Your task to perform on an android device: open app "DoorDash - Food Delivery" (install if not already installed) Image 0: 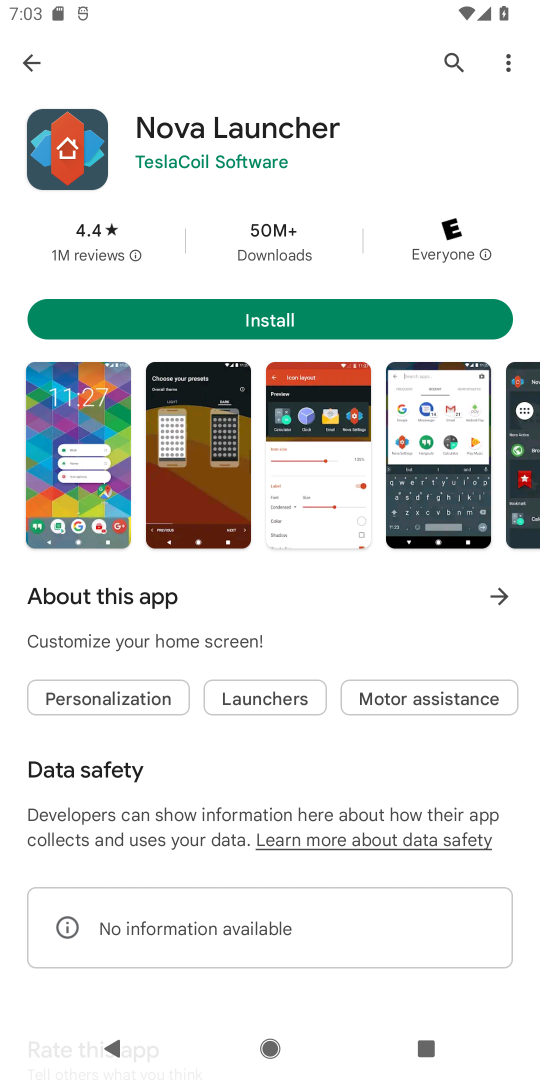
Step 0: press home button
Your task to perform on an android device: open app "DoorDash - Food Delivery" (install if not already installed) Image 1: 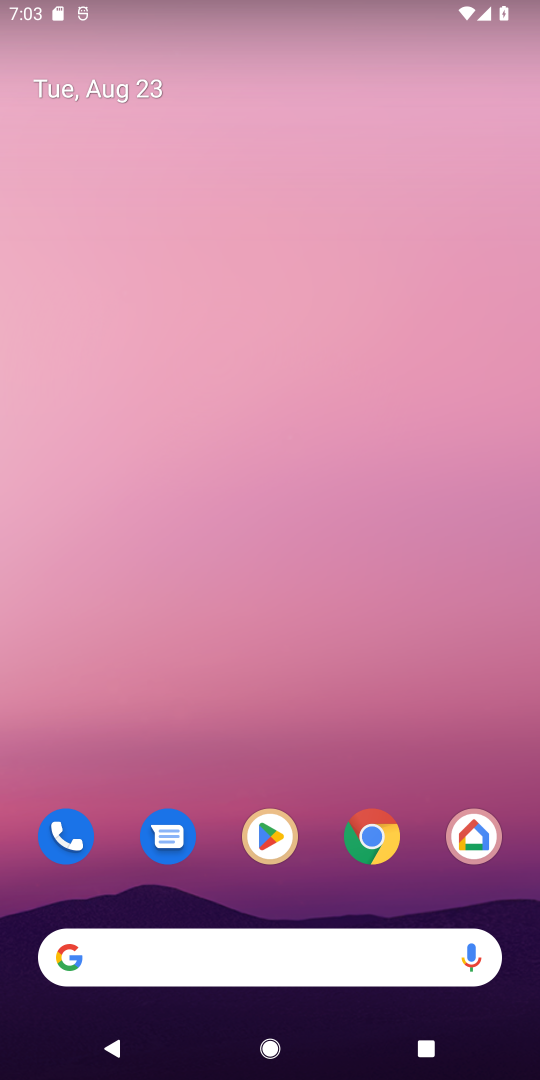
Step 1: click (264, 839)
Your task to perform on an android device: open app "DoorDash - Food Delivery" (install if not already installed) Image 2: 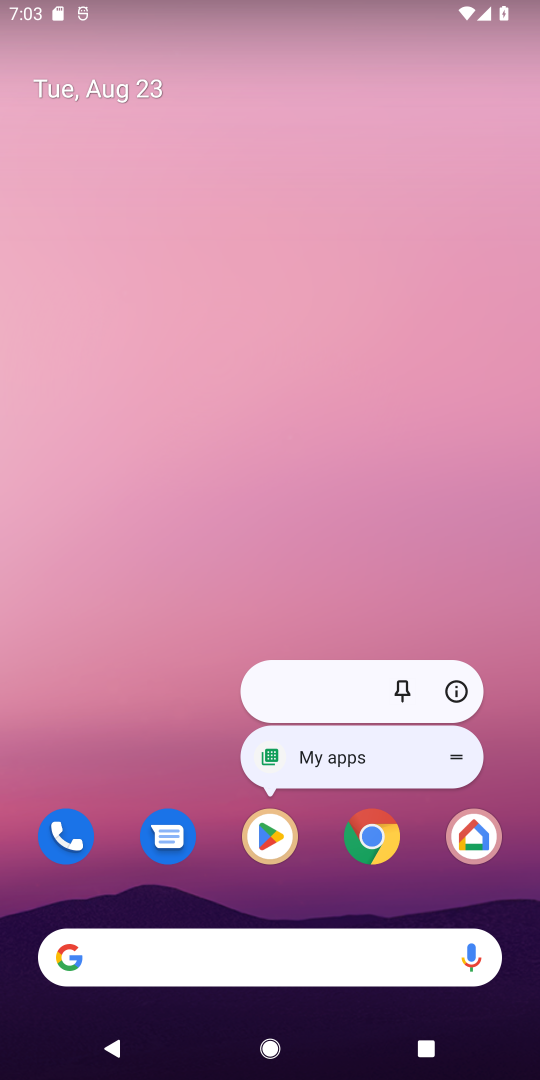
Step 2: click (275, 838)
Your task to perform on an android device: open app "DoorDash - Food Delivery" (install if not already installed) Image 3: 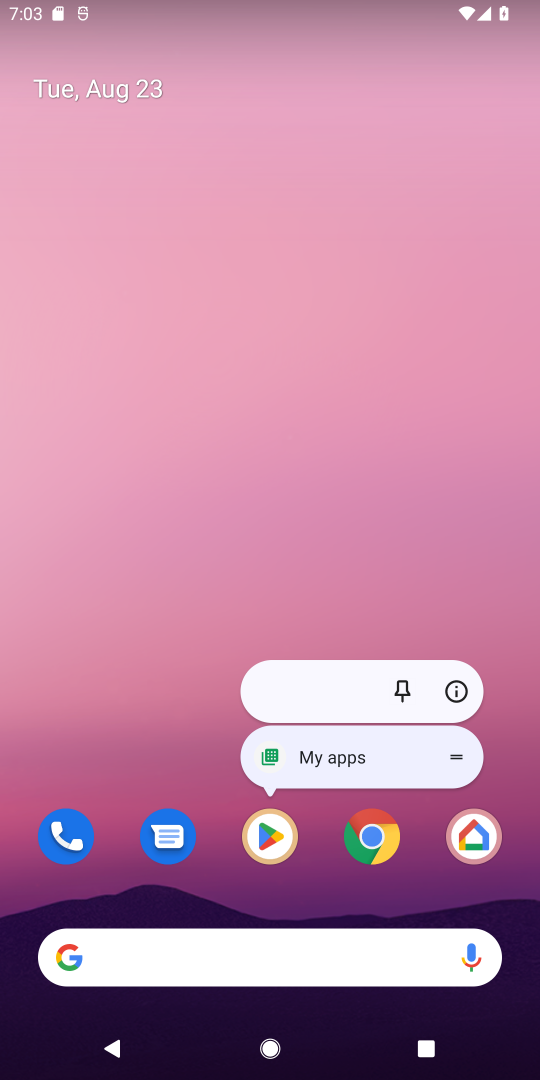
Step 3: click (278, 836)
Your task to perform on an android device: open app "DoorDash - Food Delivery" (install if not already installed) Image 4: 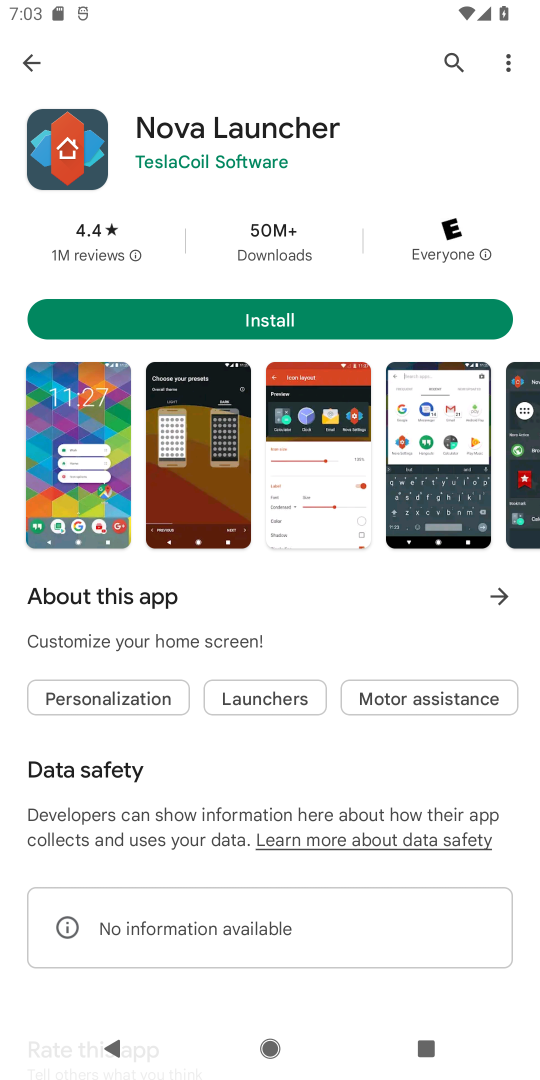
Step 4: click (453, 60)
Your task to perform on an android device: open app "DoorDash - Food Delivery" (install if not already installed) Image 5: 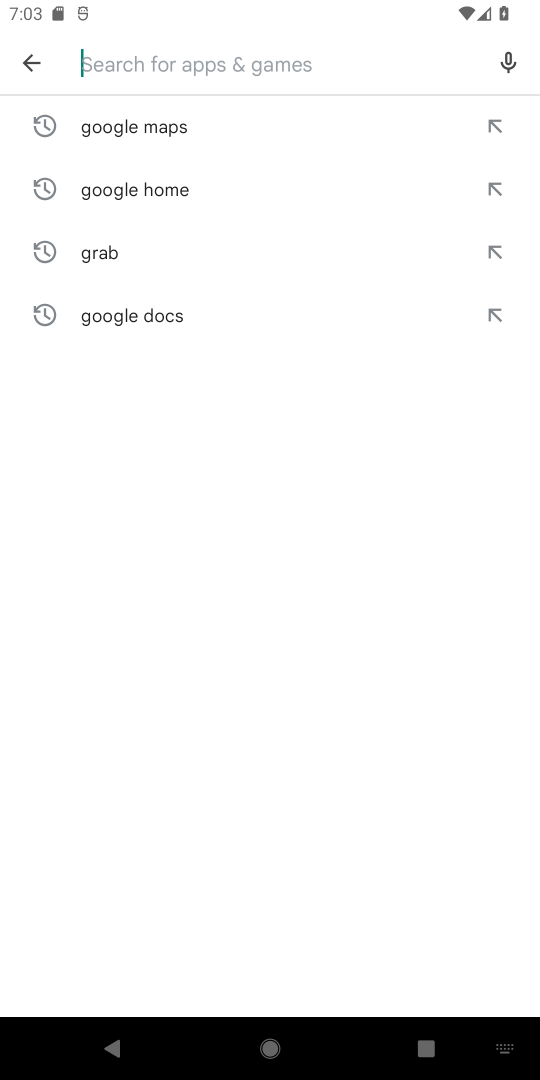
Step 5: type "DoorDash - Food Delivery"
Your task to perform on an android device: open app "DoorDash - Food Delivery" (install if not already installed) Image 6: 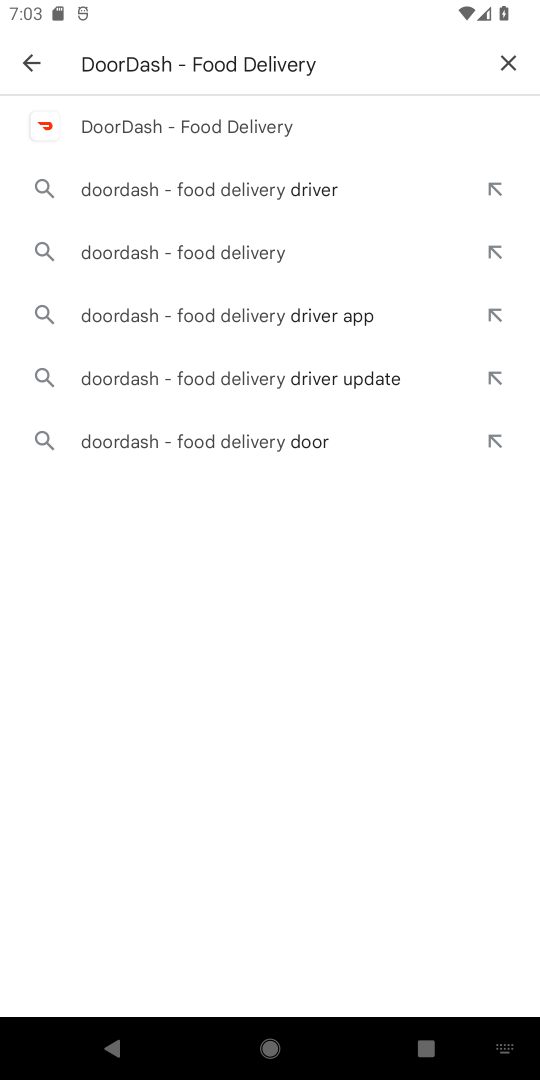
Step 6: click (254, 129)
Your task to perform on an android device: open app "DoorDash - Food Delivery" (install if not already installed) Image 7: 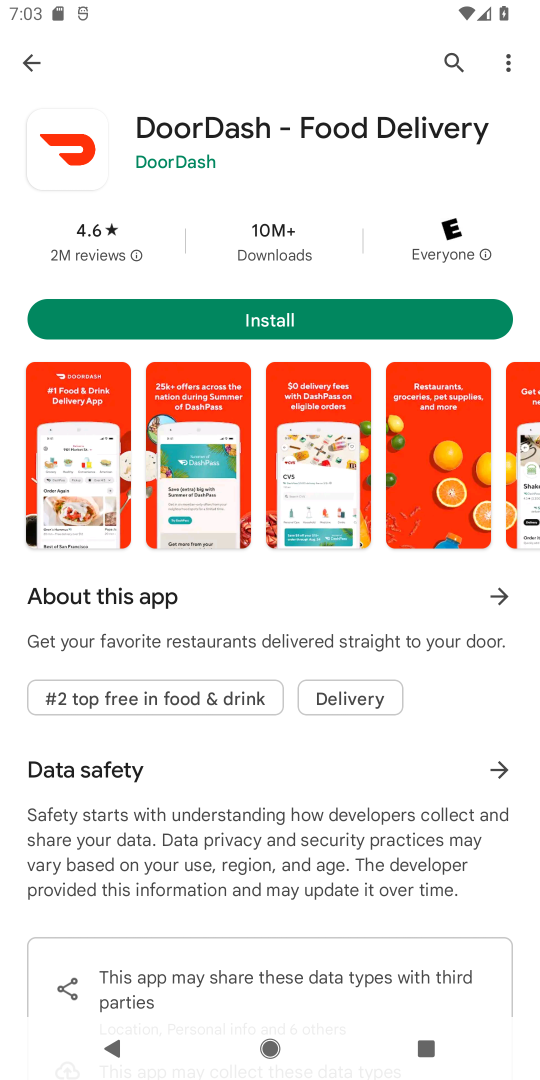
Step 7: click (255, 321)
Your task to perform on an android device: open app "DoorDash - Food Delivery" (install if not already installed) Image 8: 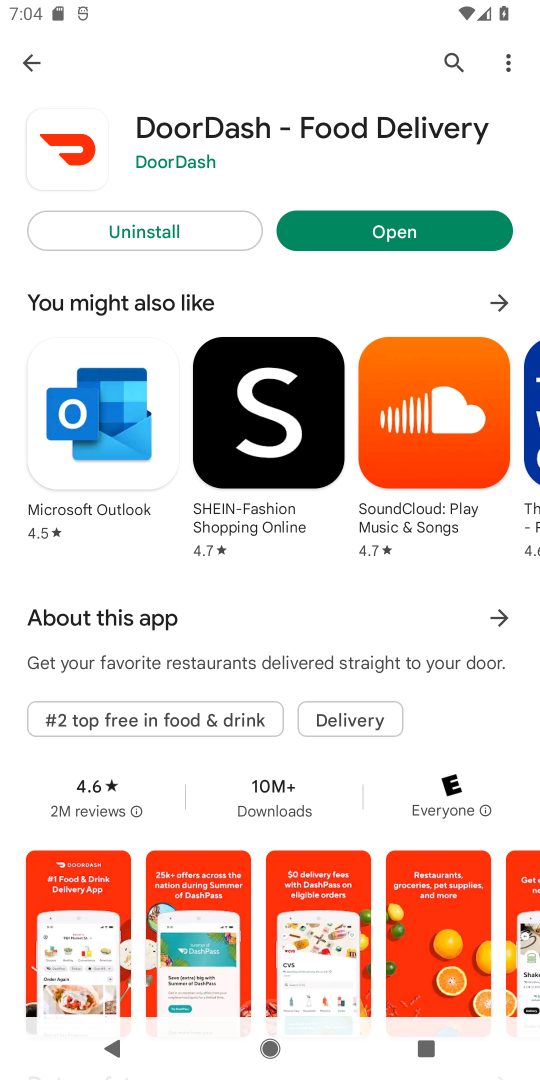
Step 8: click (409, 234)
Your task to perform on an android device: open app "DoorDash - Food Delivery" (install if not already installed) Image 9: 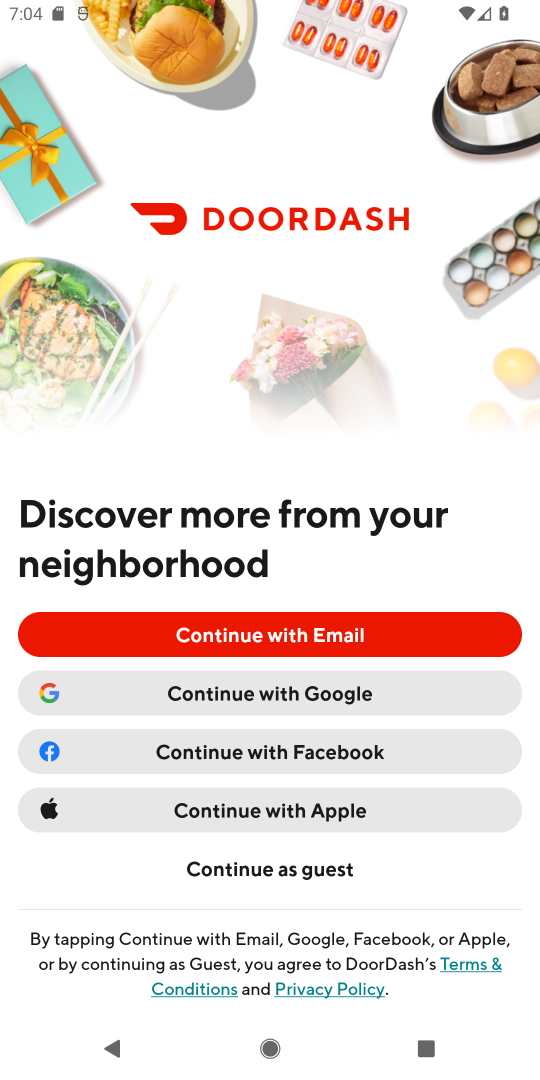
Step 9: task complete